Your task to perform on an android device: turn off location Image 0: 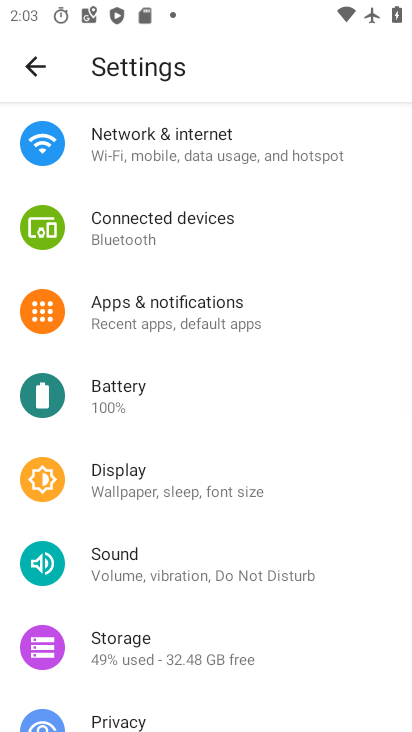
Step 0: press home button
Your task to perform on an android device: turn off location Image 1: 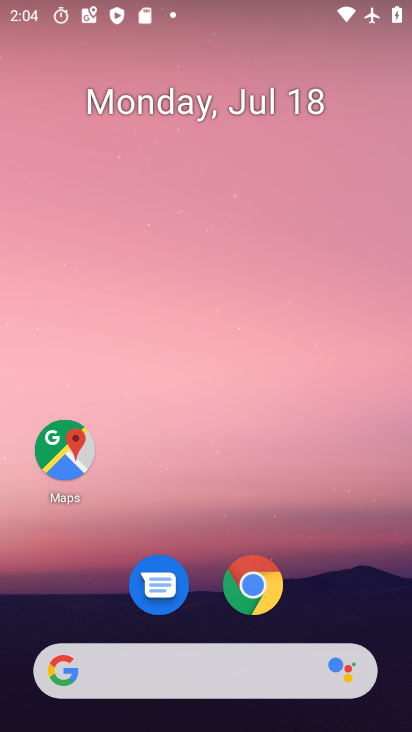
Step 1: drag from (198, 673) to (331, 101)
Your task to perform on an android device: turn off location Image 2: 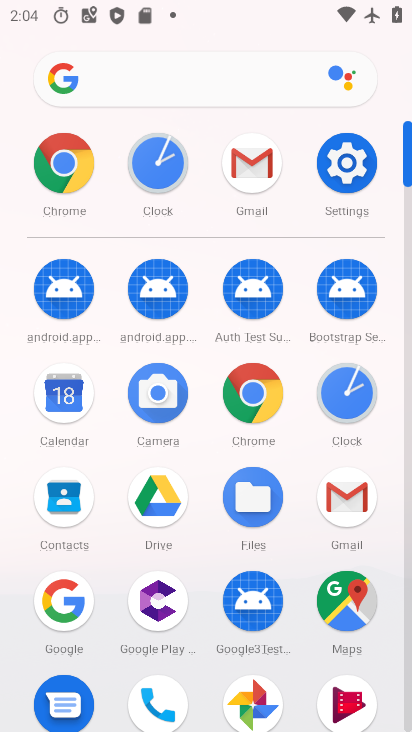
Step 2: click (342, 166)
Your task to perform on an android device: turn off location Image 3: 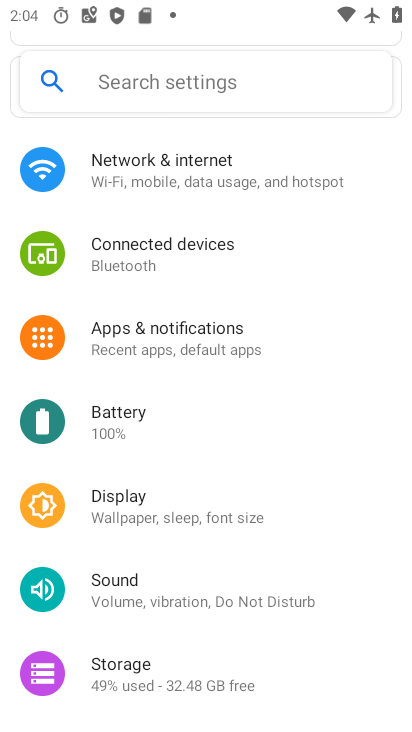
Step 3: drag from (220, 560) to (305, 149)
Your task to perform on an android device: turn off location Image 4: 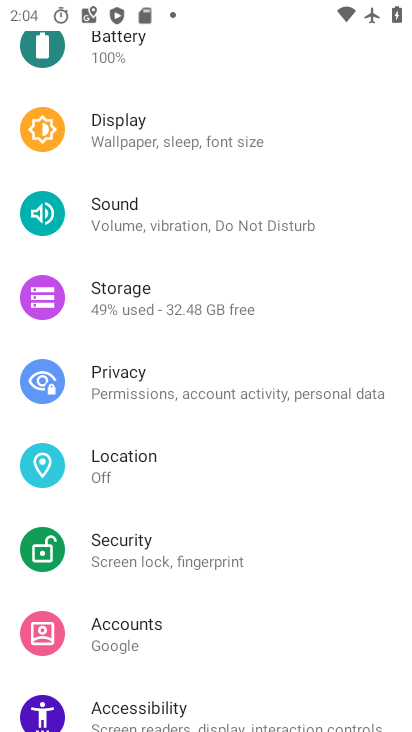
Step 4: click (161, 460)
Your task to perform on an android device: turn off location Image 5: 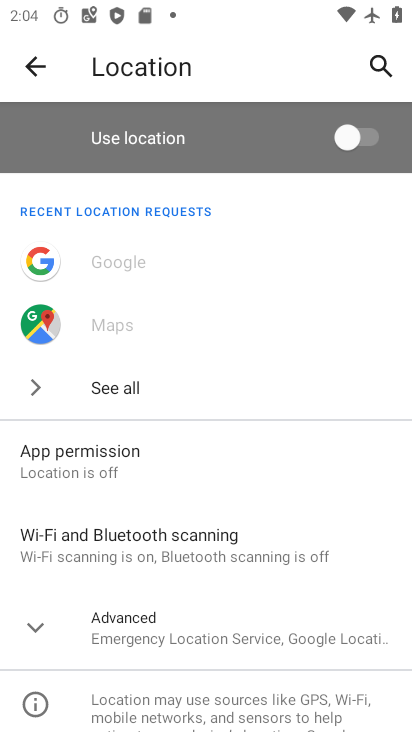
Step 5: task complete